Your task to perform on an android device: empty trash in google photos Image 0: 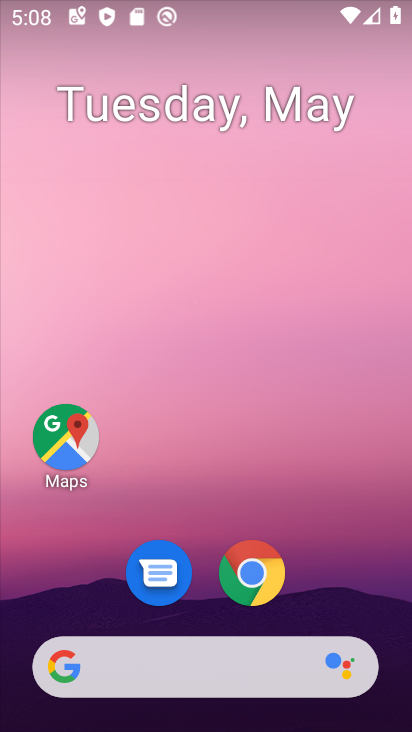
Step 0: drag from (166, 508) to (221, 73)
Your task to perform on an android device: empty trash in google photos Image 1: 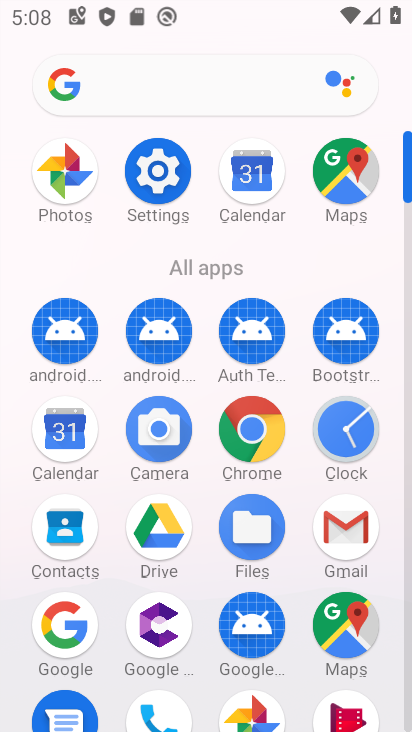
Step 1: click (255, 712)
Your task to perform on an android device: empty trash in google photos Image 2: 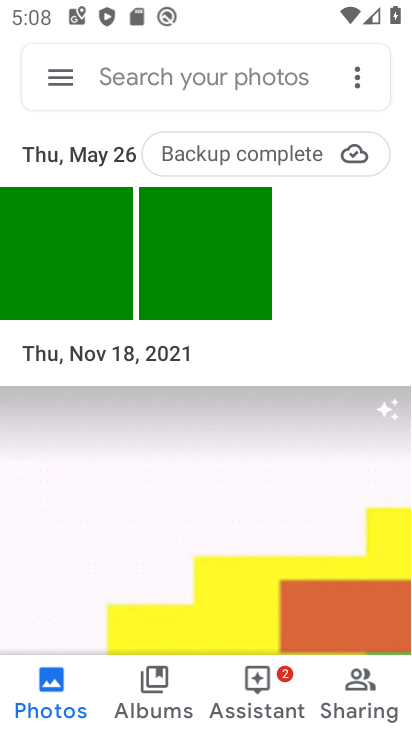
Step 2: click (52, 79)
Your task to perform on an android device: empty trash in google photos Image 3: 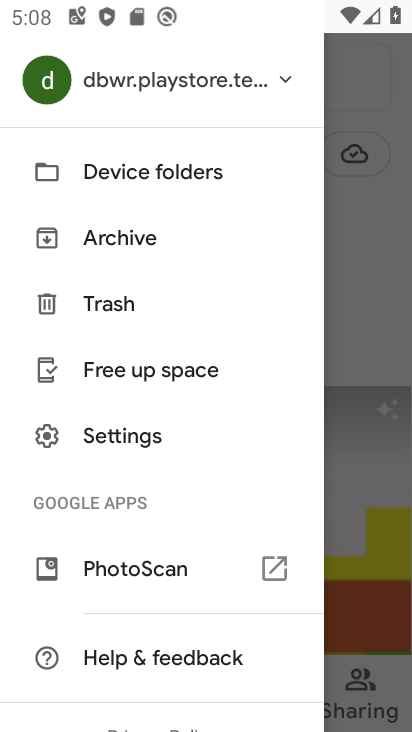
Step 3: click (391, 320)
Your task to perform on an android device: empty trash in google photos Image 4: 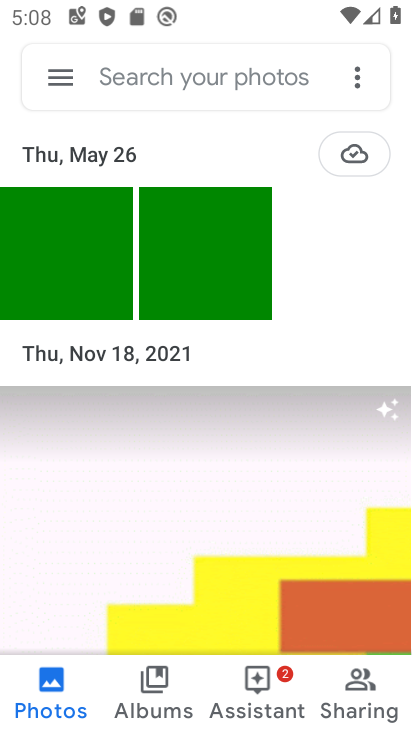
Step 4: click (60, 684)
Your task to perform on an android device: empty trash in google photos Image 5: 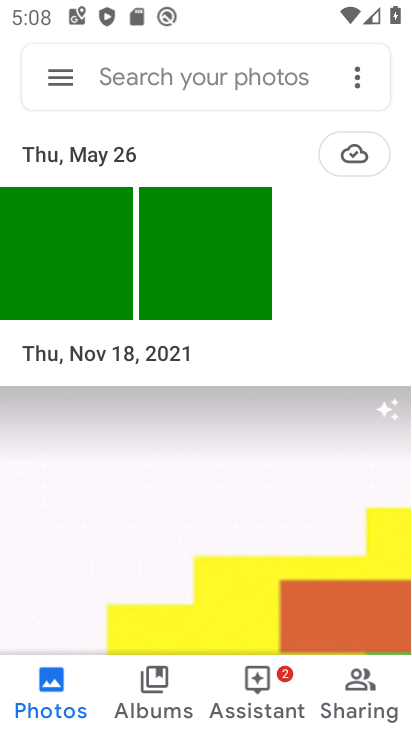
Step 5: task complete